Your task to perform on an android device: open a new tab in the chrome app Image 0: 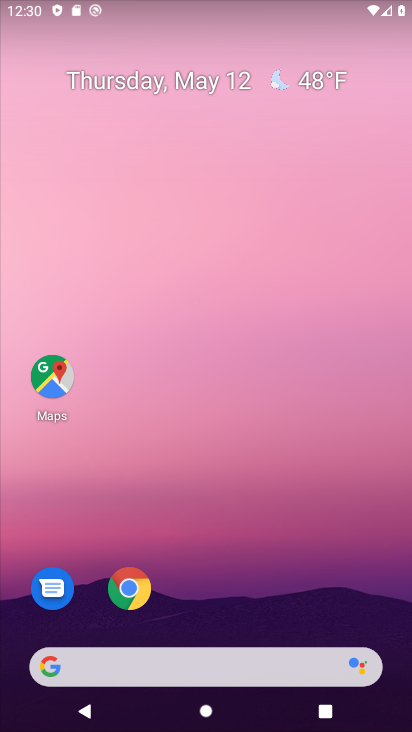
Step 0: drag from (329, 634) to (234, 43)
Your task to perform on an android device: open a new tab in the chrome app Image 1: 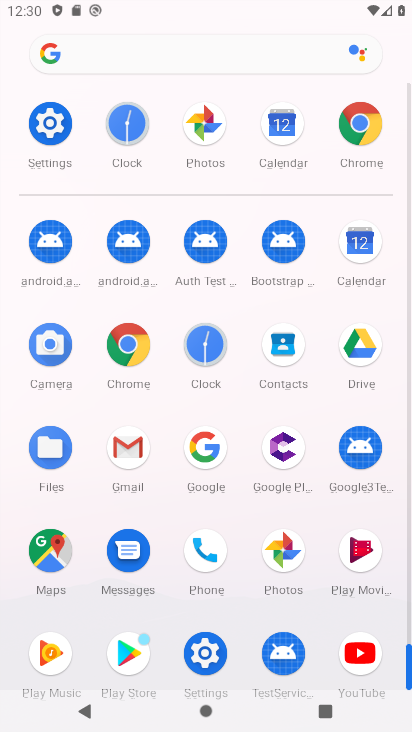
Step 1: click (367, 114)
Your task to perform on an android device: open a new tab in the chrome app Image 2: 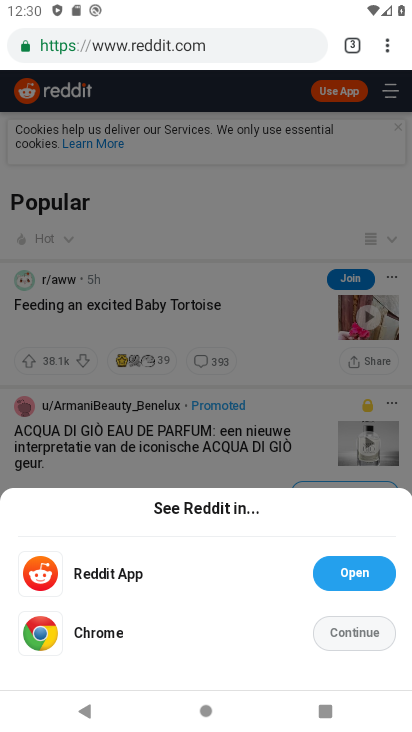
Step 2: drag from (392, 44) to (222, 89)
Your task to perform on an android device: open a new tab in the chrome app Image 3: 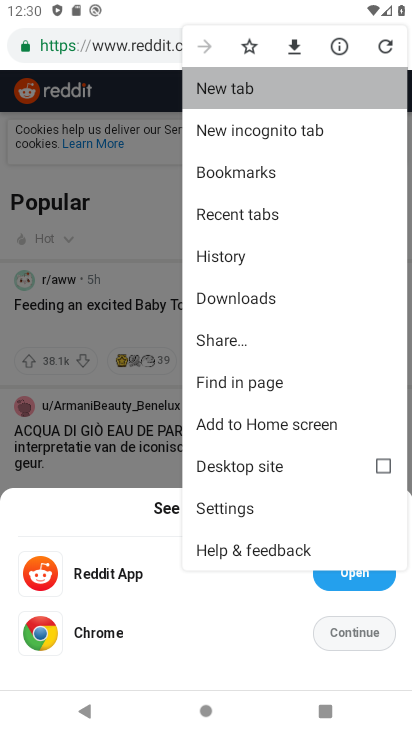
Step 3: click (222, 89)
Your task to perform on an android device: open a new tab in the chrome app Image 4: 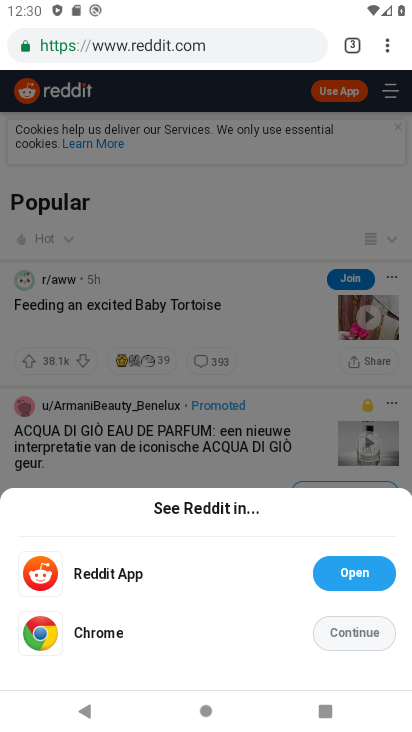
Step 4: click (222, 89)
Your task to perform on an android device: open a new tab in the chrome app Image 5: 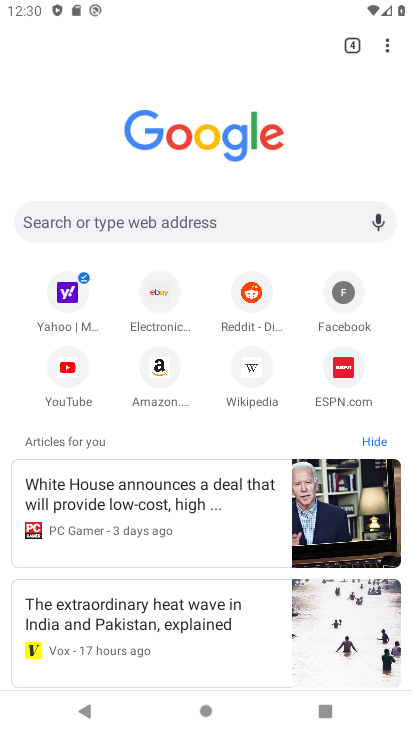
Step 5: task complete